Your task to perform on an android device: add a label to a message in the gmail app Image 0: 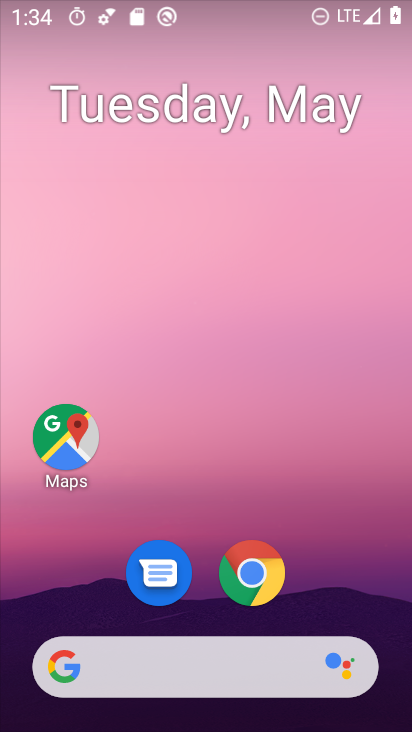
Step 0: drag from (365, 543) to (260, 48)
Your task to perform on an android device: add a label to a message in the gmail app Image 1: 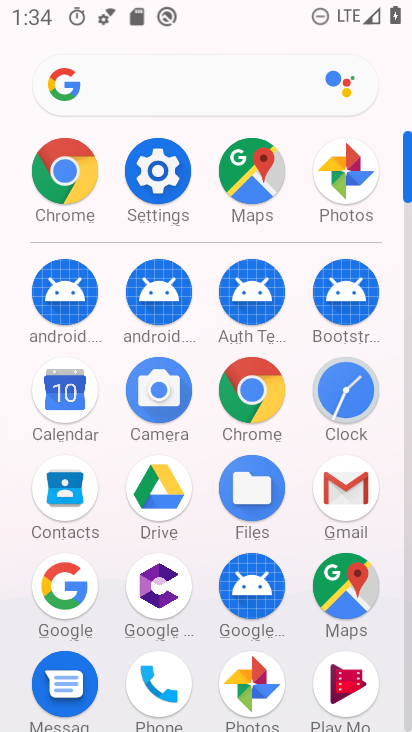
Step 1: click (367, 499)
Your task to perform on an android device: add a label to a message in the gmail app Image 2: 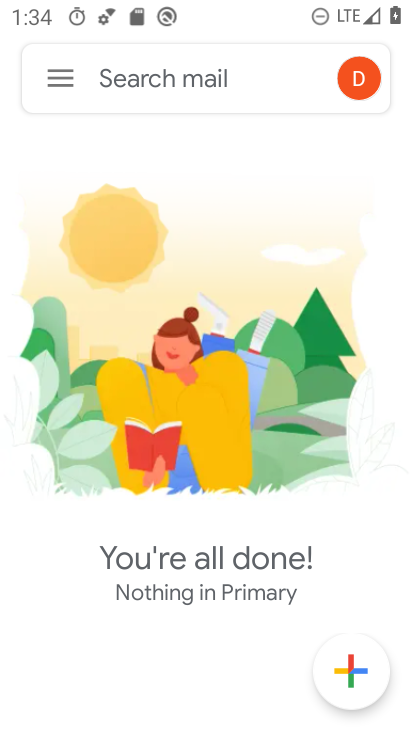
Step 2: click (49, 70)
Your task to perform on an android device: add a label to a message in the gmail app Image 3: 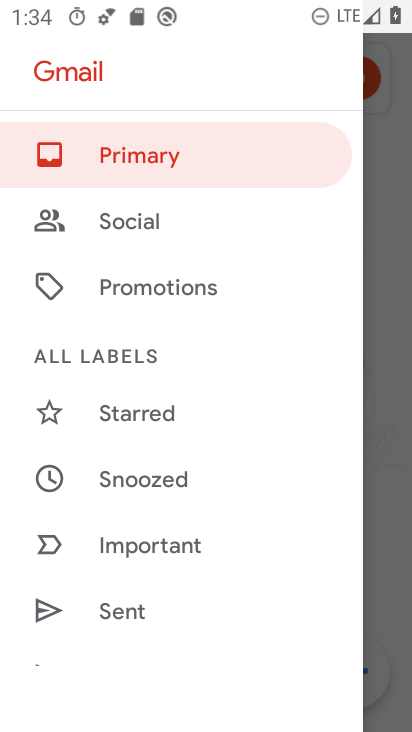
Step 3: drag from (116, 217) to (203, 447)
Your task to perform on an android device: add a label to a message in the gmail app Image 4: 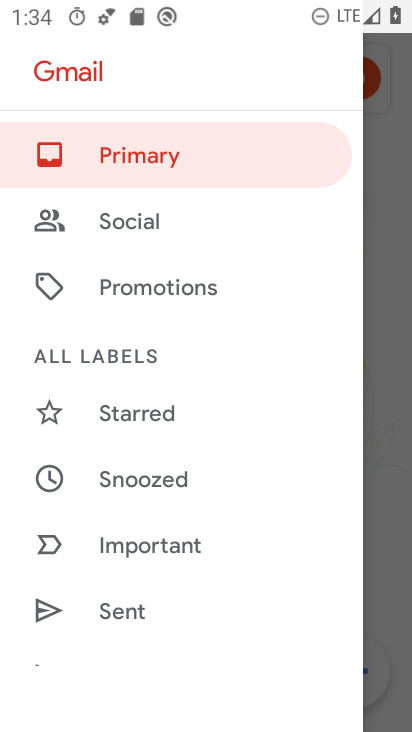
Step 4: drag from (221, 414) to (267, 216)
Your task to perform on an android device: add a label to a message in the gmail app Image 5: 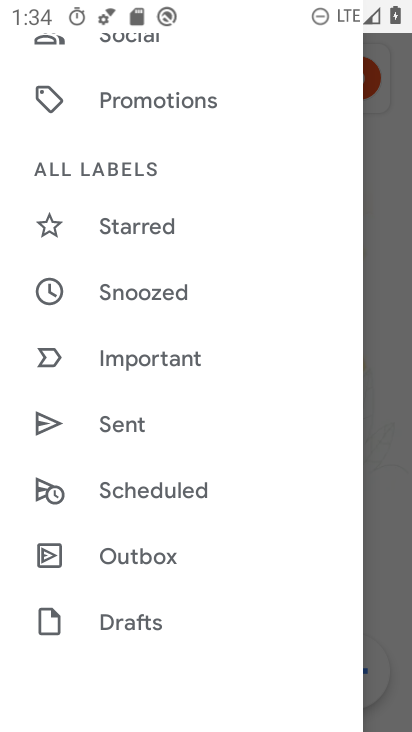
Step 5: drag from (302, 540) to (245, 173)
Your task to perform on an android device: add a label to a message in the gmail app Image 6: 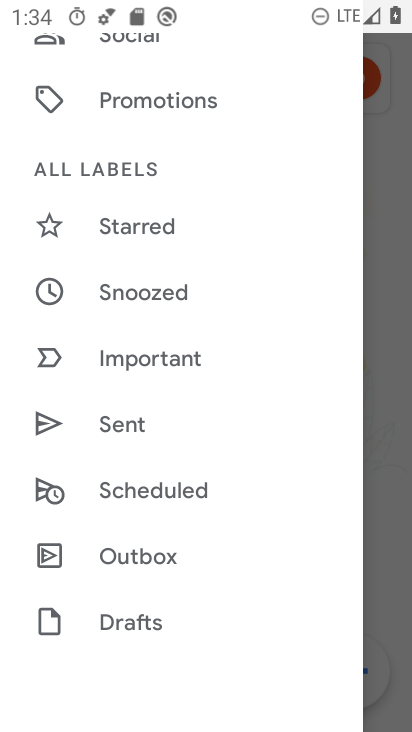
Step 6: drag from (167, 569) to (157, 243)
Your task to perform on an android device: add a label to a message in the gmail app Image 7: 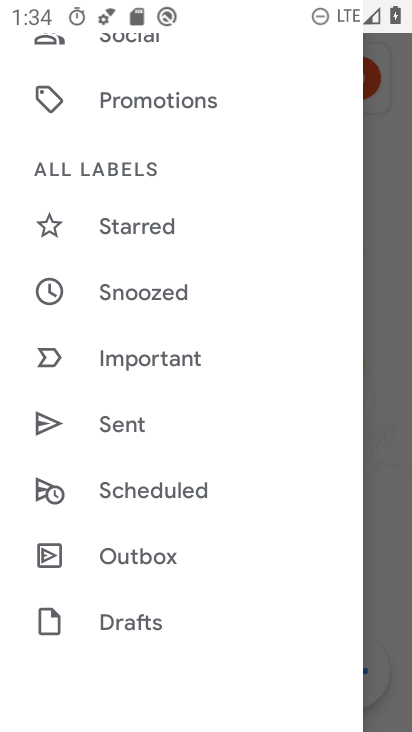
Step 7: drag from (187, 561) to (189, 255)
Your task to perform on an android device: add a label to a message in the gmail app Image 8: 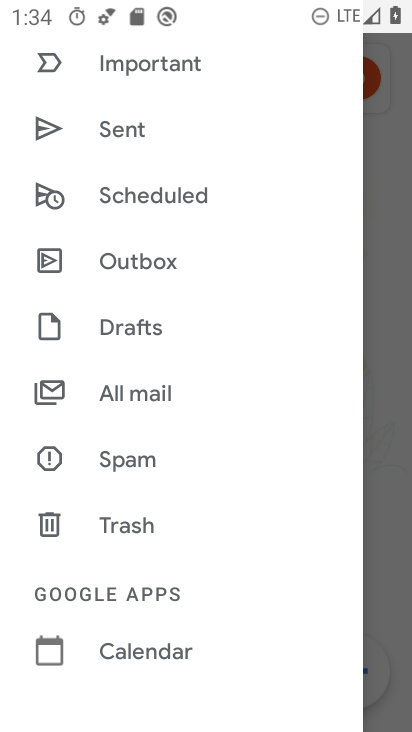
Step 8: drag from (189, 255) to (195, 438)
Your task to perform on an android device: add a label to a message in the gmail app Image 9: 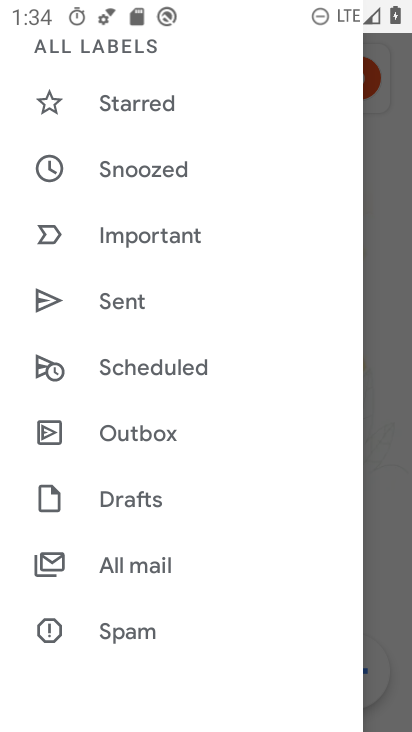
Step 9: click (158, 566)
Your task to perform on an android device: add a label to a message in the gmail app Image 10: 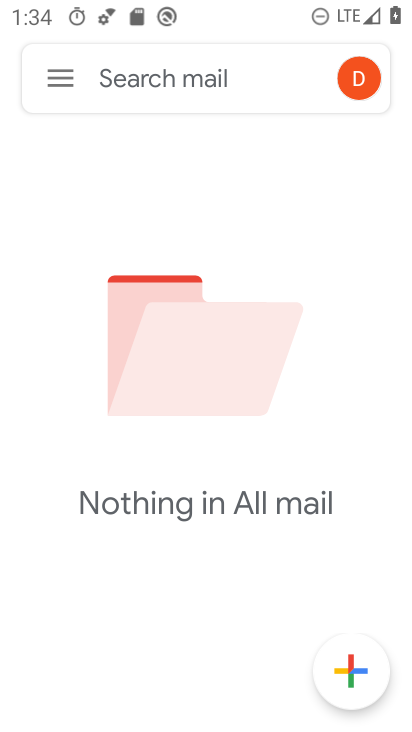
Step 10: task complete